Your task to perform on an android device: Toggle the flashlight Image 0: 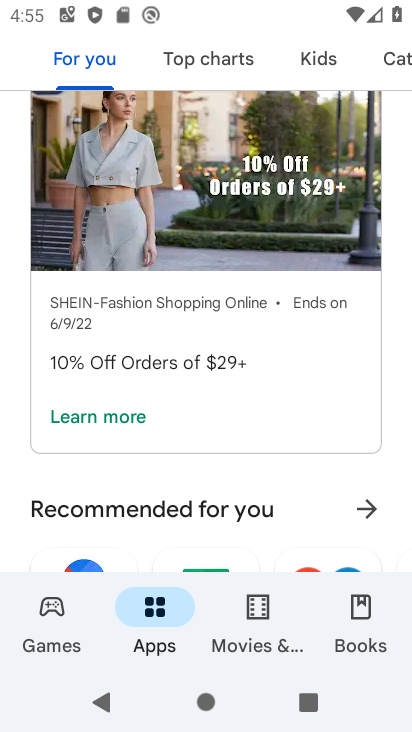
Step 0: drag from (241, 11) to (292, 359)
Your task to perform on an android device: Toggle the flashlight Image 1: 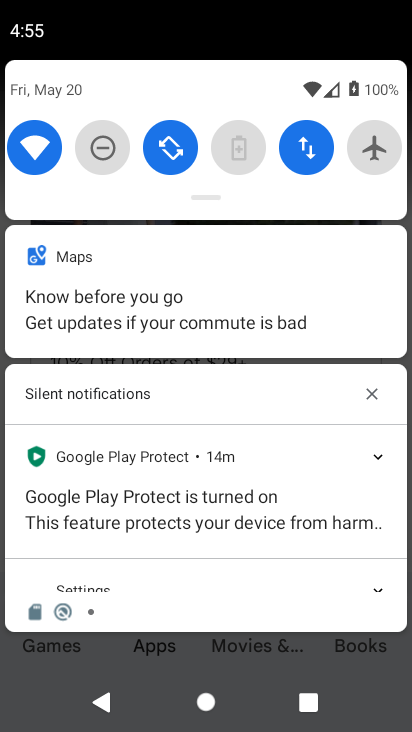
Step 1: drag from (135, 157) to (188, 552)
Your task to perform on an android device: Toggle the flashlight Image 2: 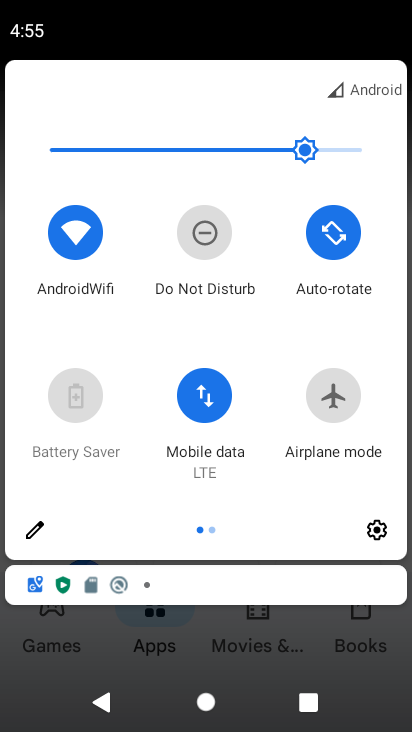
Step 2: drag from (330, 385) to (0, 533)
Your task to perform on an android device: Toggle the flashlight Image 3: 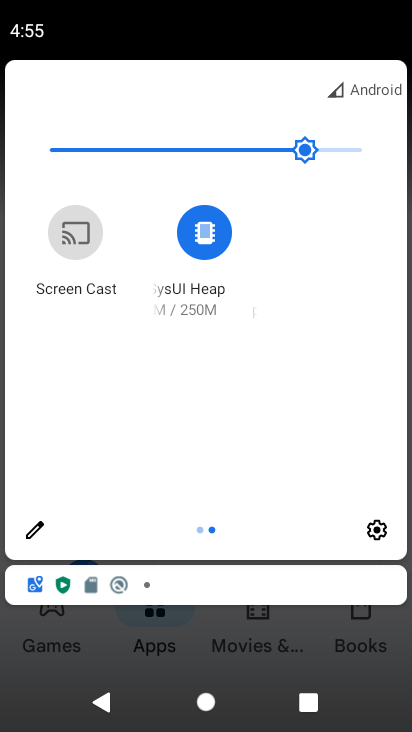
Step 3: click (36, 530)
Your task to perform on an android device: Toggle the flashlight Image 4: 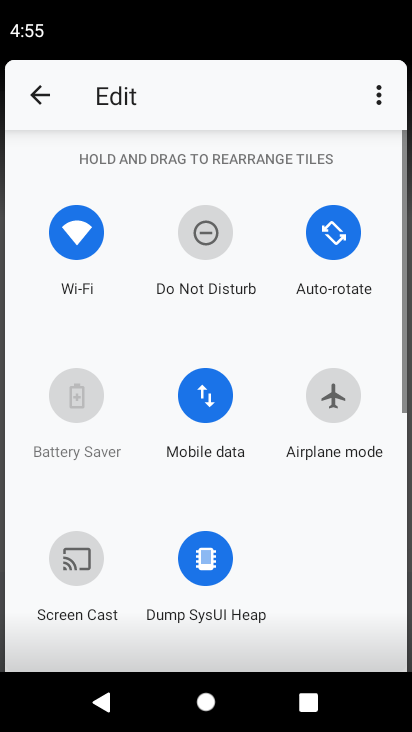
Step 4: task complete